Your task to perform on an android device: Open calendar and show me the first week of next month Image 0: 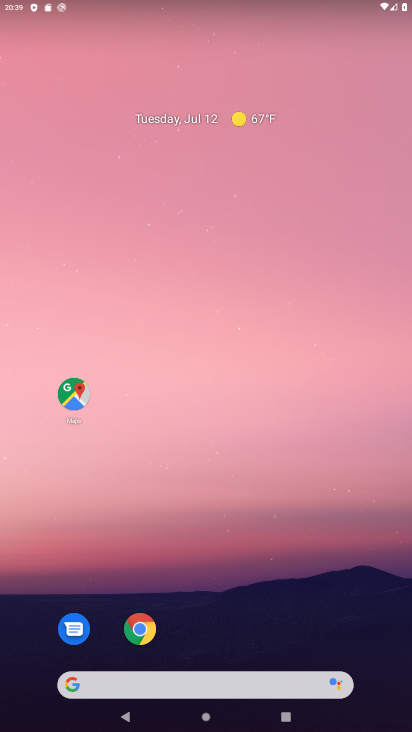
Step 0: drag from (168, 705) to (228, 1)
Your task to perform on an android device: Open calendar and show me the first week of next month Image 1: 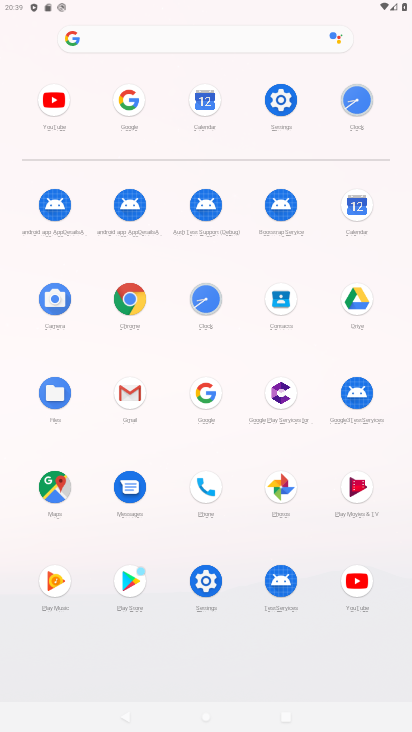
Step 1: click (352, 213)
Your task to perform on an android device: Open calendar and show me the first week of next month Image 2: 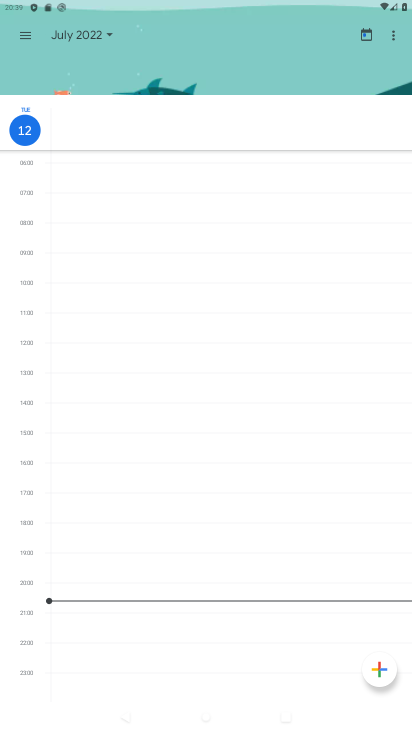
Step 2: click (83, 32)
Your task to perform on an android device: Open calendar and show me the first week of next month Image 3: 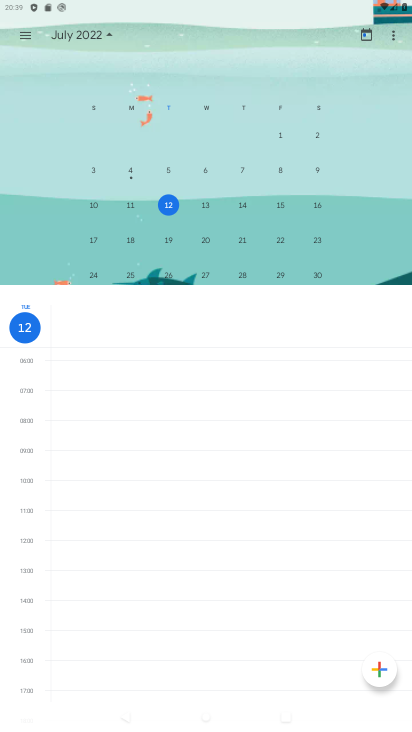
Step 3: task complete